Your task to perform on an android device: set an alarm Image 0: 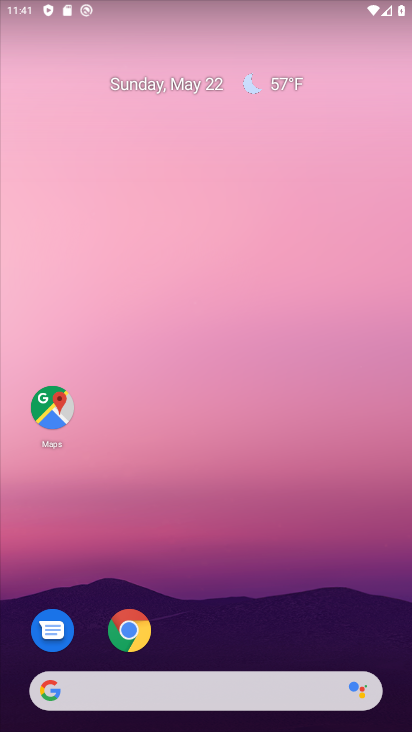
Step 0: press home button
Your task to perform on an android device: set an alarm Image 1: 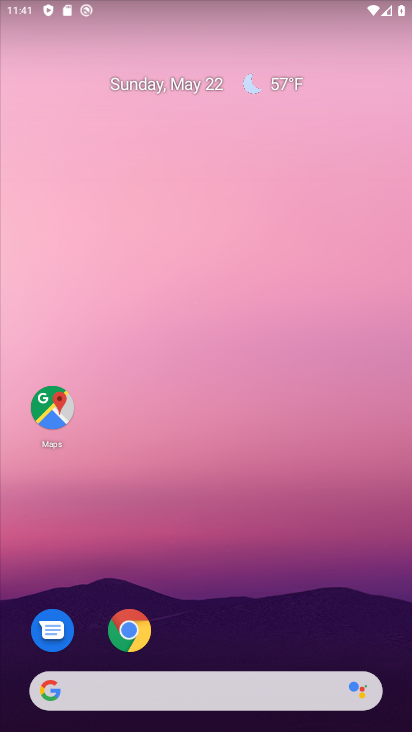
Step 1: drag from (284, 581) to (204, 30)
Your task to perform on an android device: set an alarm Image 2: 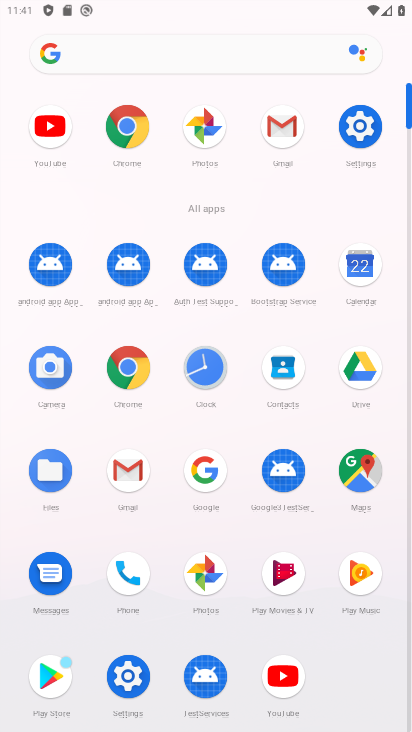
Step 2: click (209, 369)
Your task to perform on an android device: set an alarm Image 3: 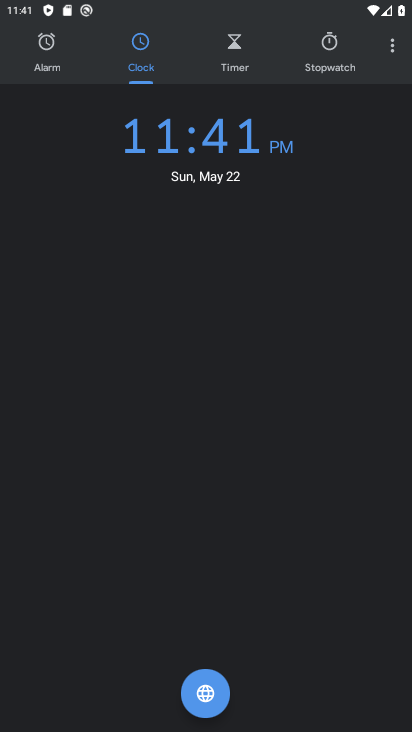
Step 3: click (52, 44)
Your task to perform on an android device: set an alarm Image 4: 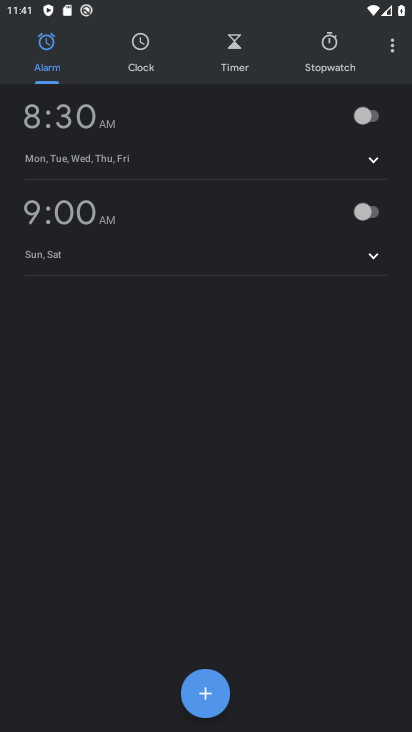
Step 4: click (370, 111)
Your task to perform on an android device: set an alarm Image 5: 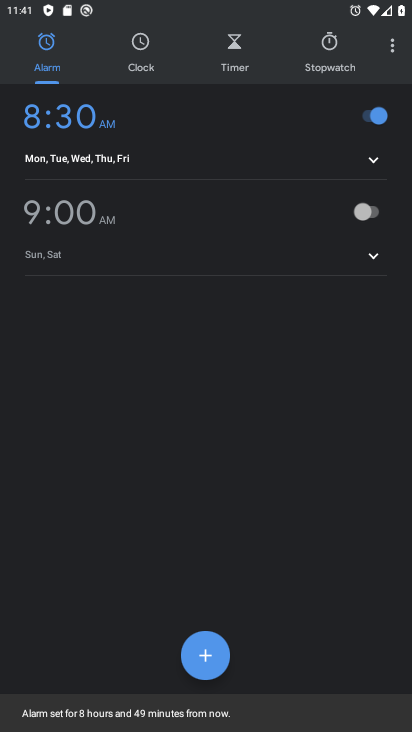
Step 5: task complete